Your task to perform on an android device: Open eBay Image 0: 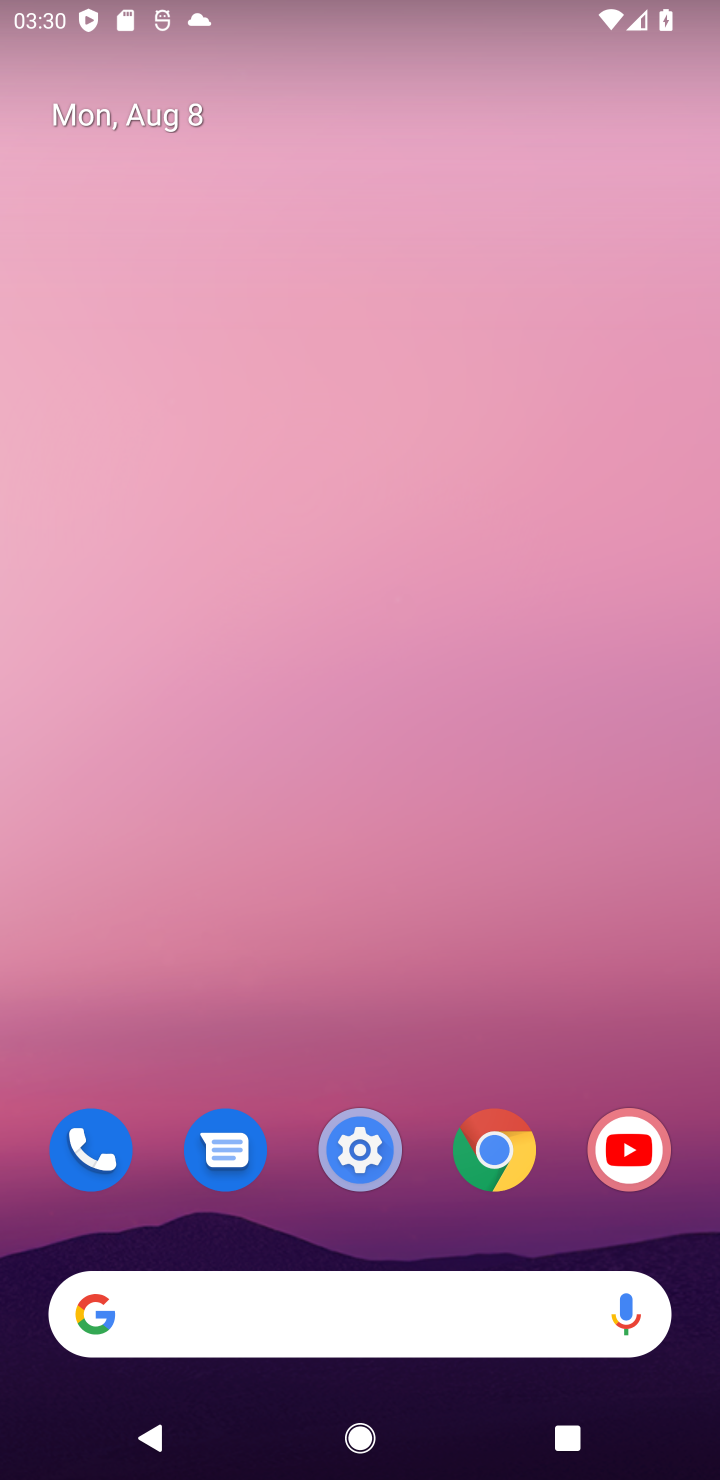
Step 0: click (501, 1149)
Your task to perform on an android device: Open eBay Image 1: 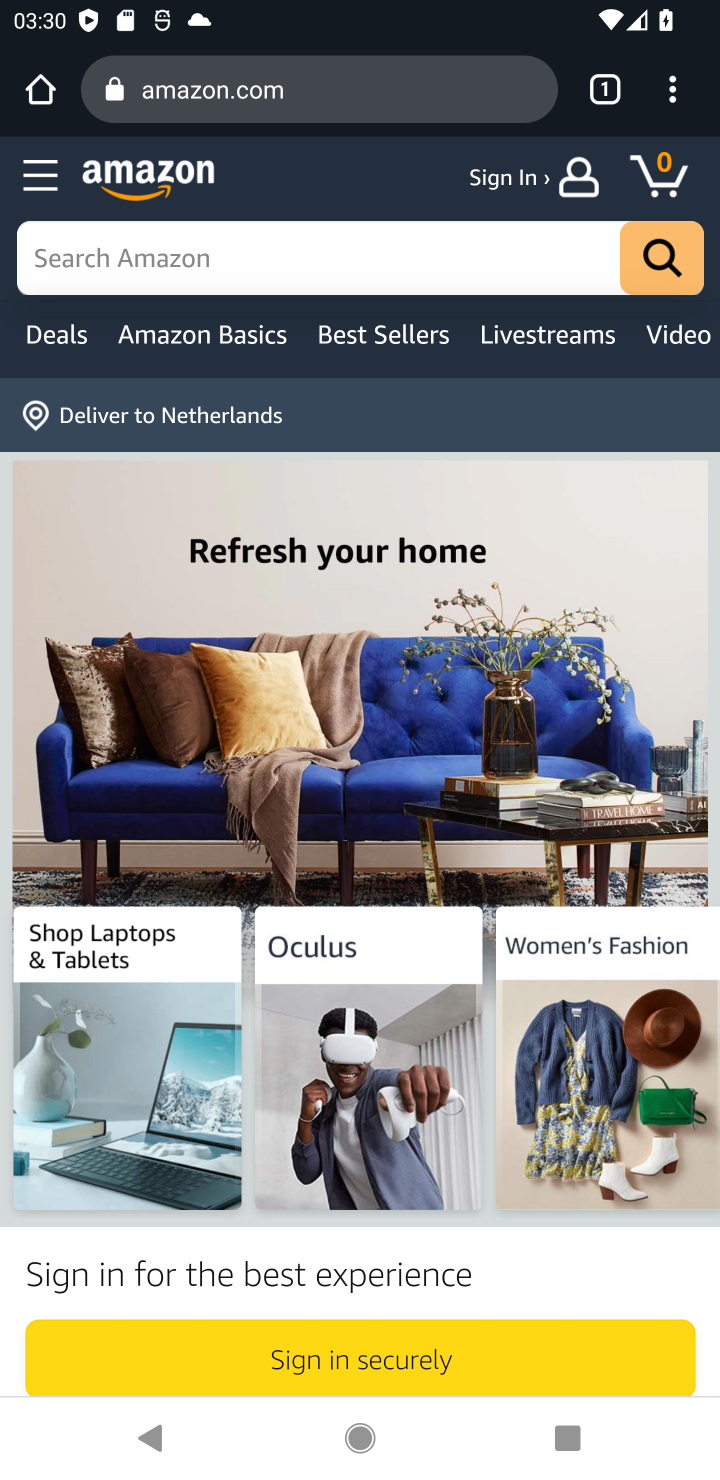
Step 1: click (218, 94)
Your task to perform on an android device: Open eBay Image 2: 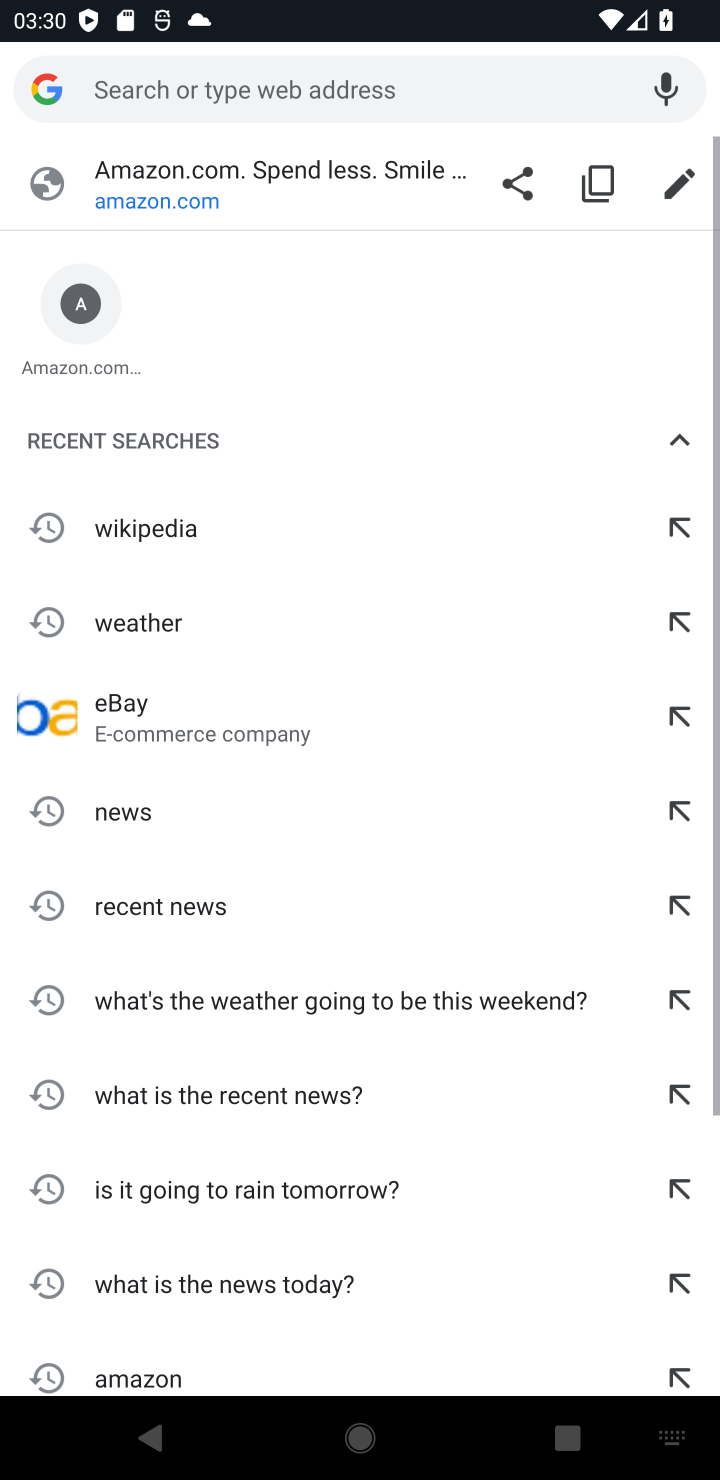
Step 2: click (207, 70)
Your task to perform on an android device: Open eBay Image 3: 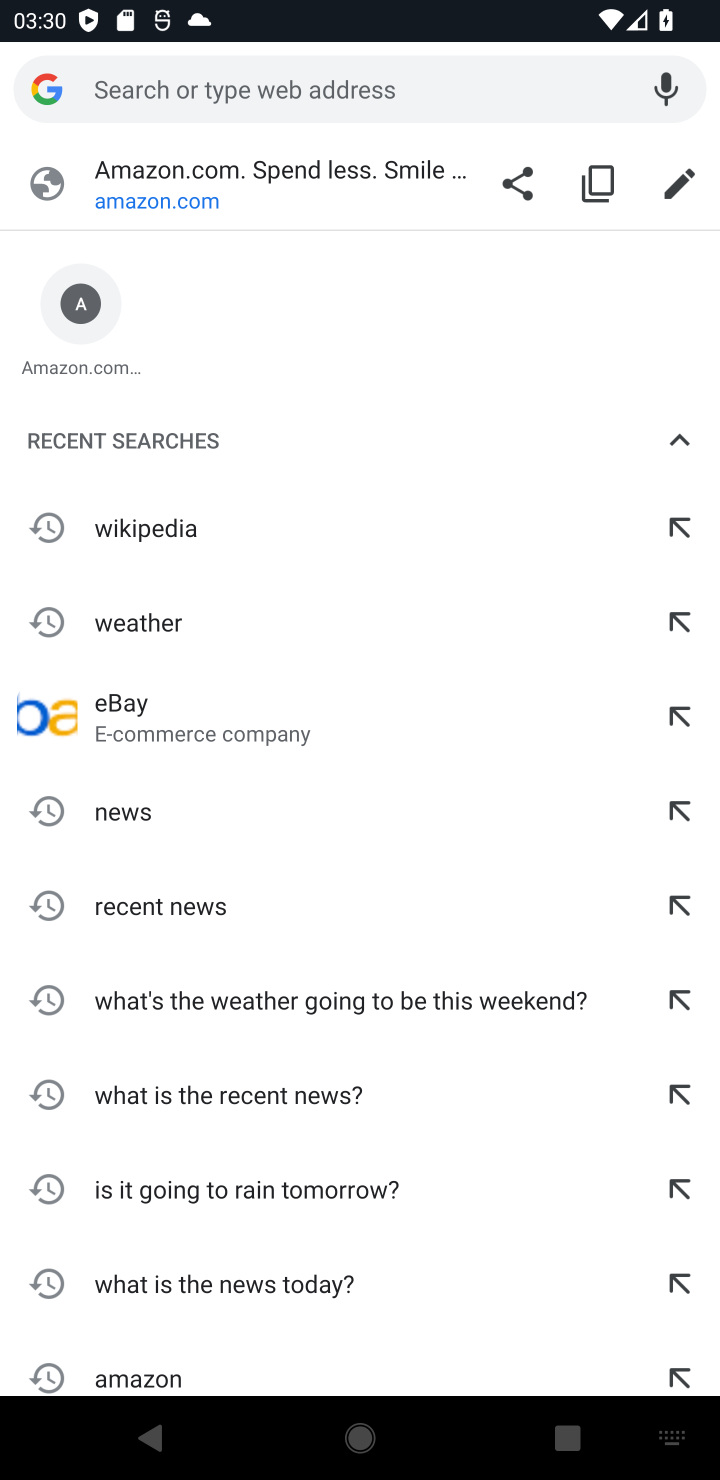
Step 3: click (129, 721)
Your task to perform on an android device: Open eBay Image 4: 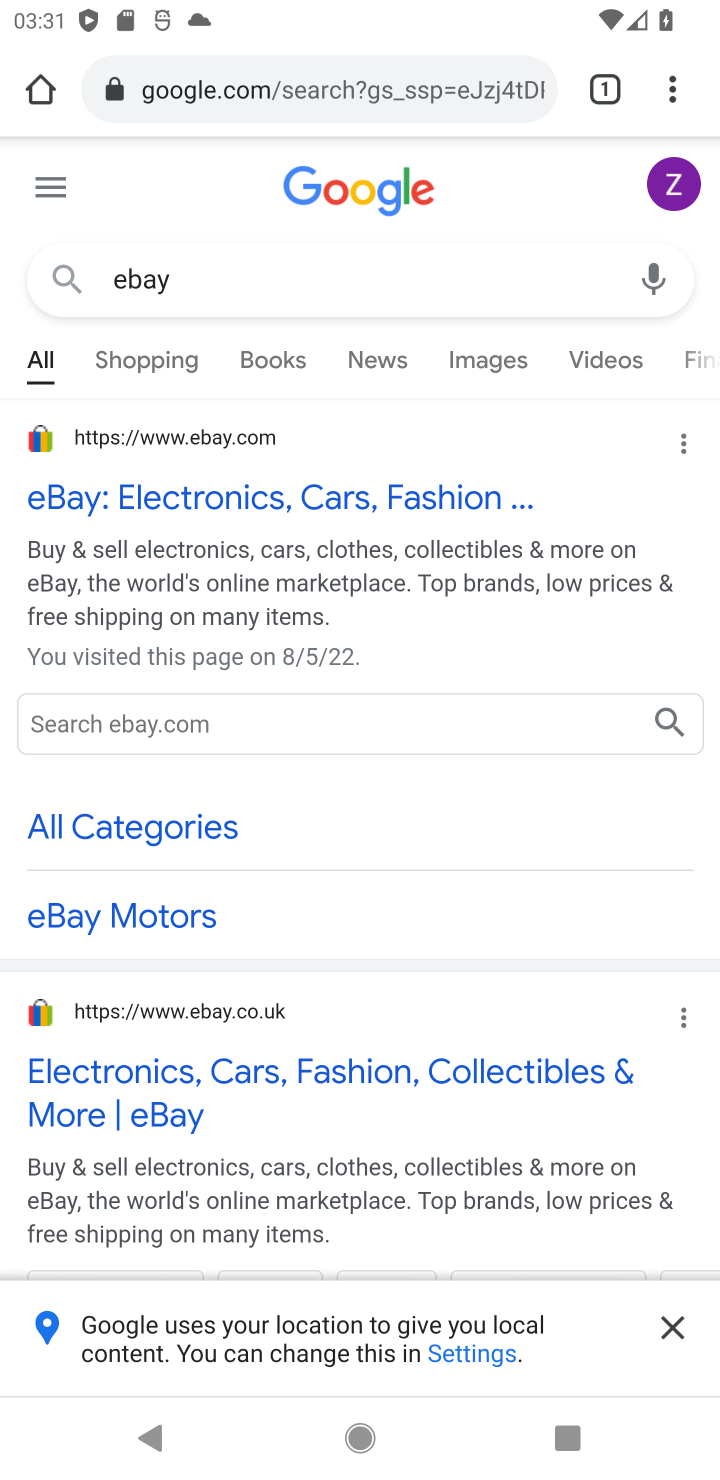
Step 4: task complete